Your task to perform on an android device: Go to Wikipedia Image 0: 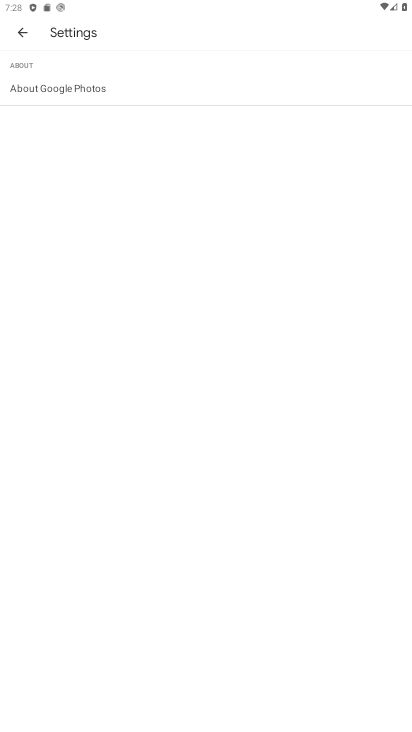
Step 0: press home button
Your task to perform on an android device: Go to Wikipedia Image 1: 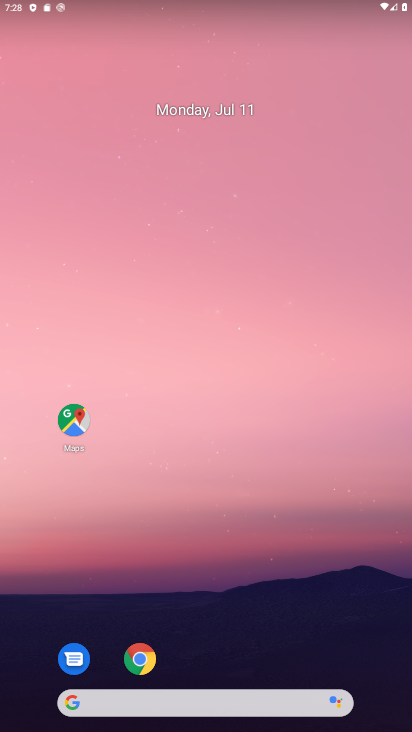
Step 1: drag from (257, 476) to (258, 9)
Your task to perform on an android device: Go to Wikipedia Image 2: 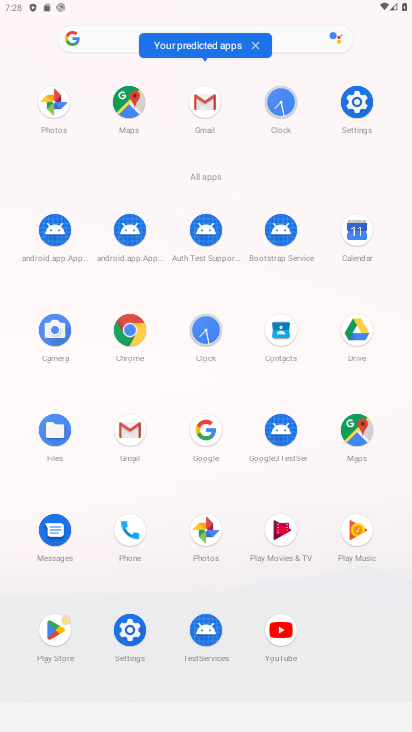
Step 2: click (124, 345)
Your task to perform on an android device: Go to Wikipedia Image 3: 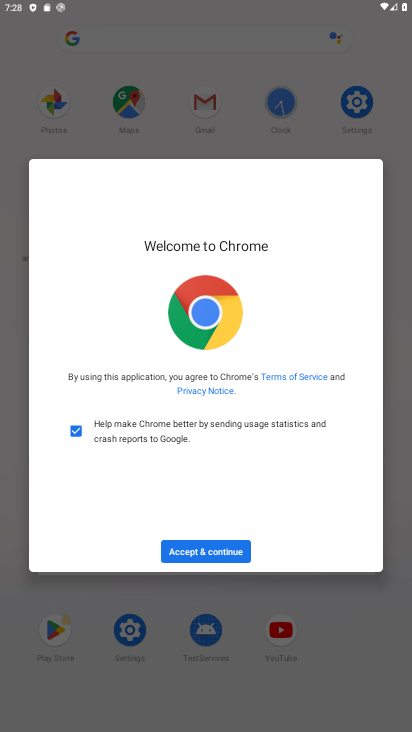
Step 3: click (218, 558)
Your task to perform on an android device: Go to Wikipedia Image 4: 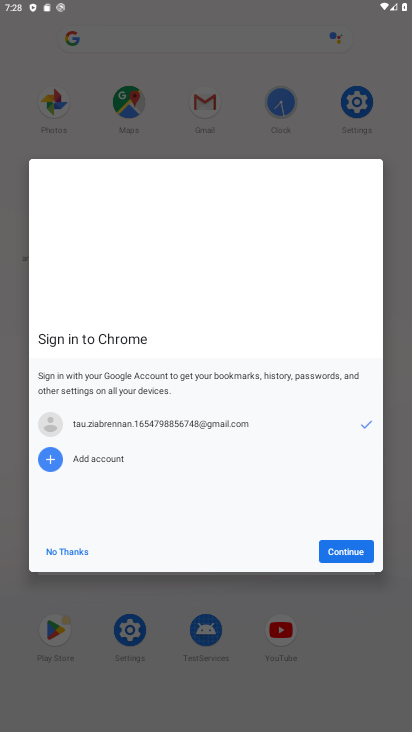
Step 4: click (52, 551)
Your task to perform on an android device: Go to Wikipedia Image 5: 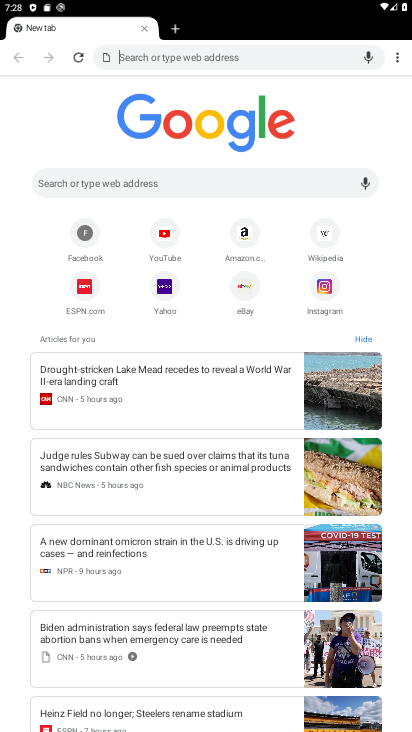
Step 5: click (328, 233)
Your task to perform on an android device: Go to Wikipedia Image 6: 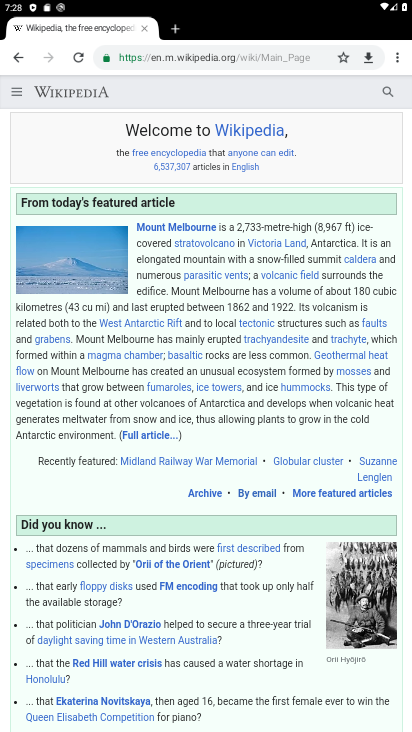
Step 6: task complete